Your task to perform on an android device: Search for cool wooden wall art on Etsy. Image 0: 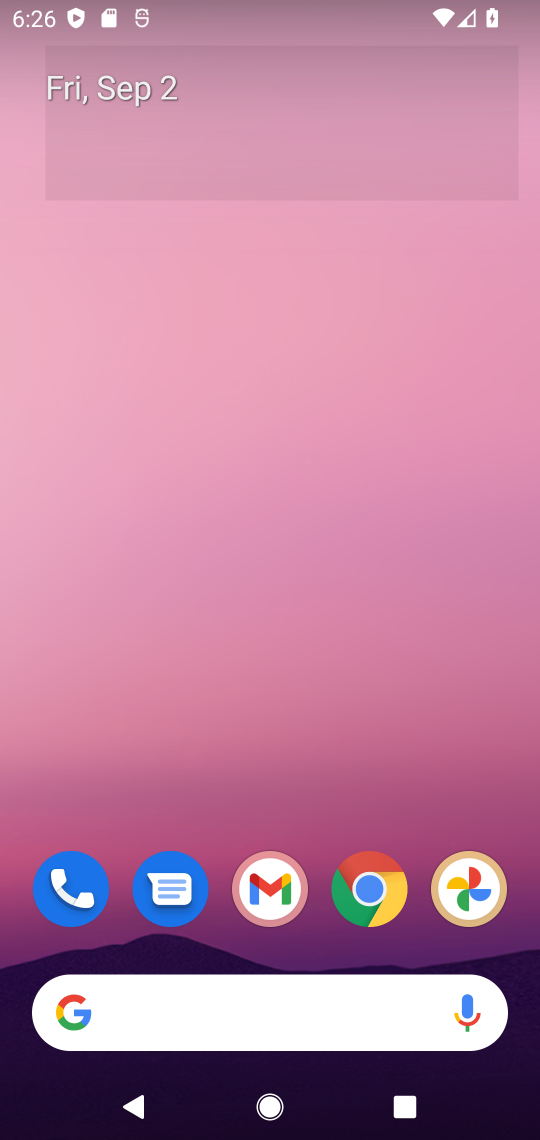
Step 0: click (342, 1032)
Your task to perform on an android device: Search for cool wooden wall art on Etsy. Image 1: 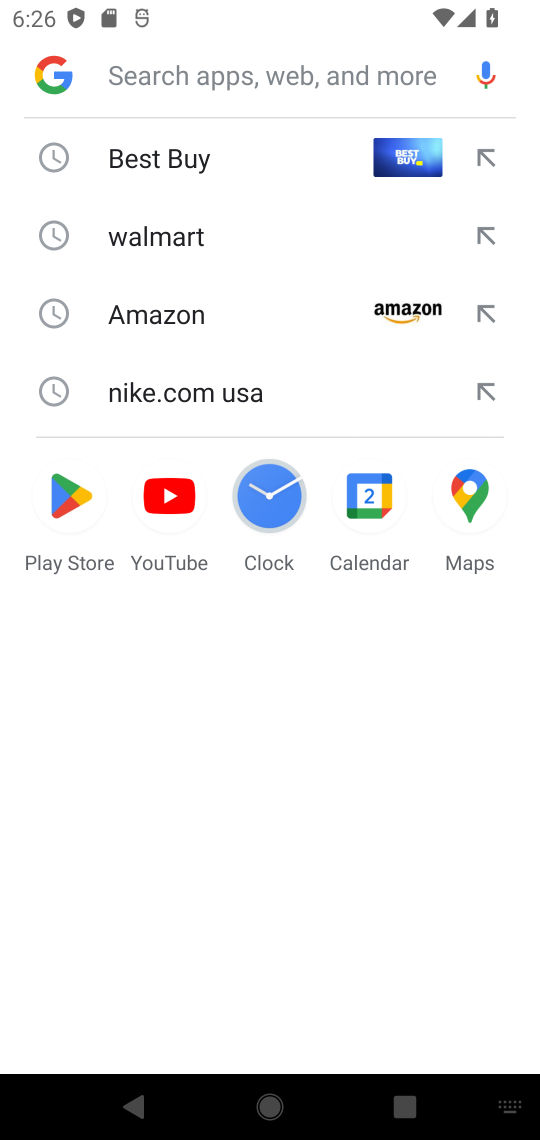
Step 1: type "Etsy."
Your task to perform on an android device: Search for cool wooden wall art on Etsy. Image 2: 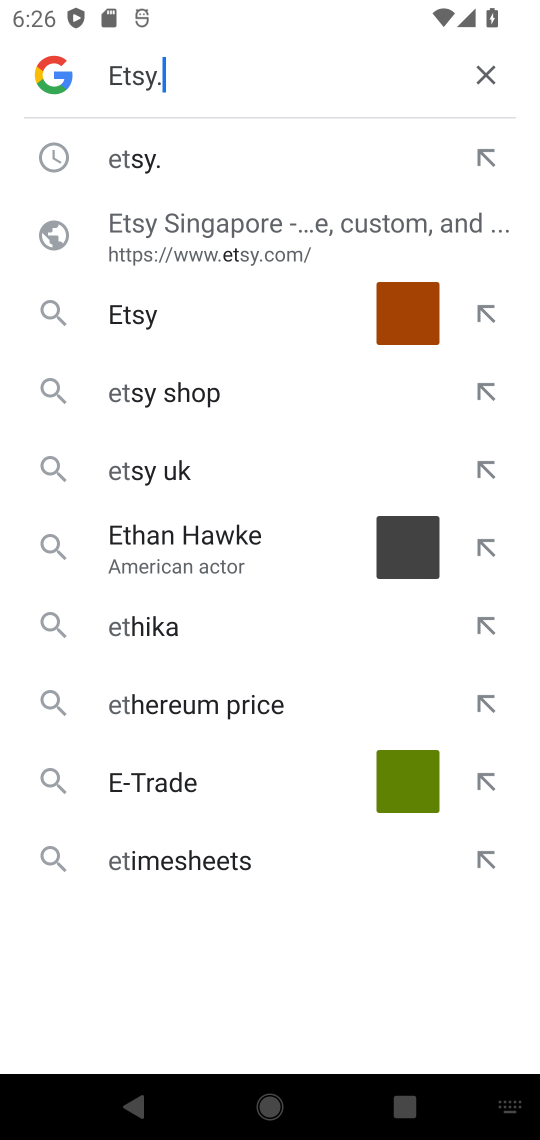
Step 2: type ""
Your task to perform on an android device: Search for cool wooden wall art on Etsy. Image 3: 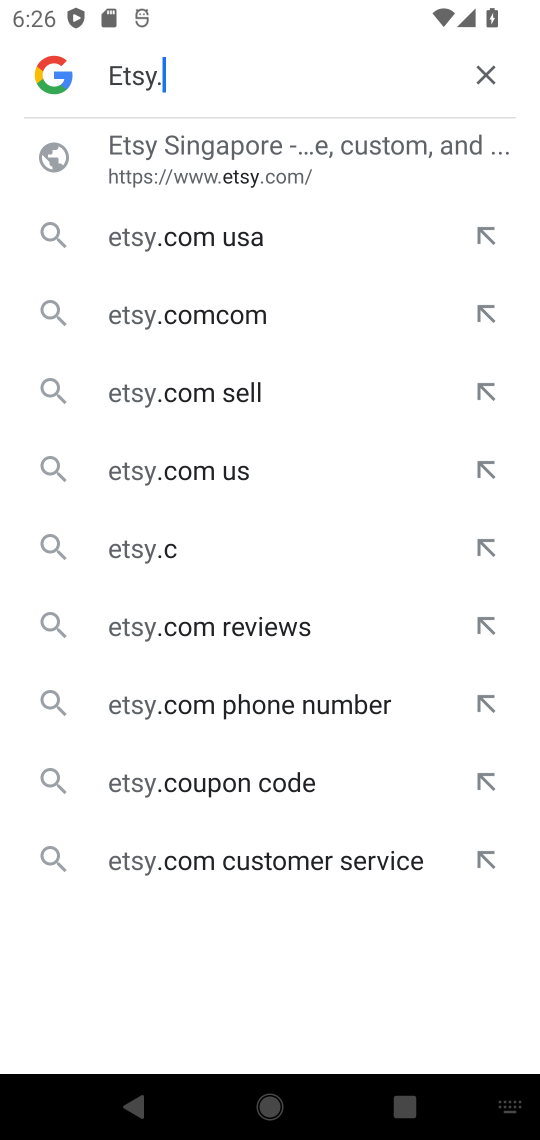
Step 3: click (211, 246)
Your task to perform on an android device: Search for cool wooden wall art on Etsy. Image 4: 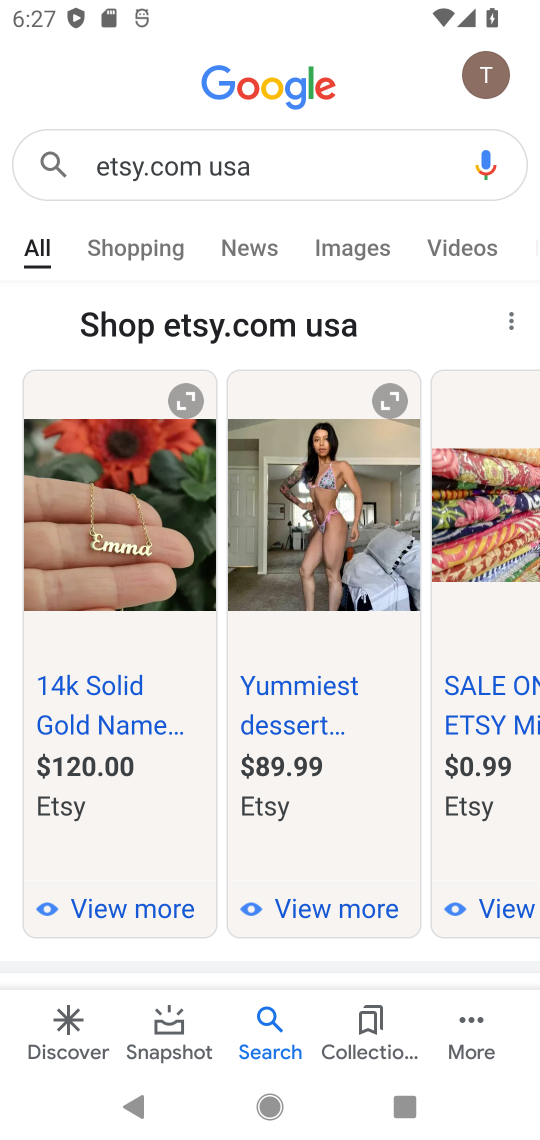
Step 4: drag from (225, 929) to (272, 317)
Your task to perform on an android device: Search for cool wooden wall art on Etsy. Image 5: 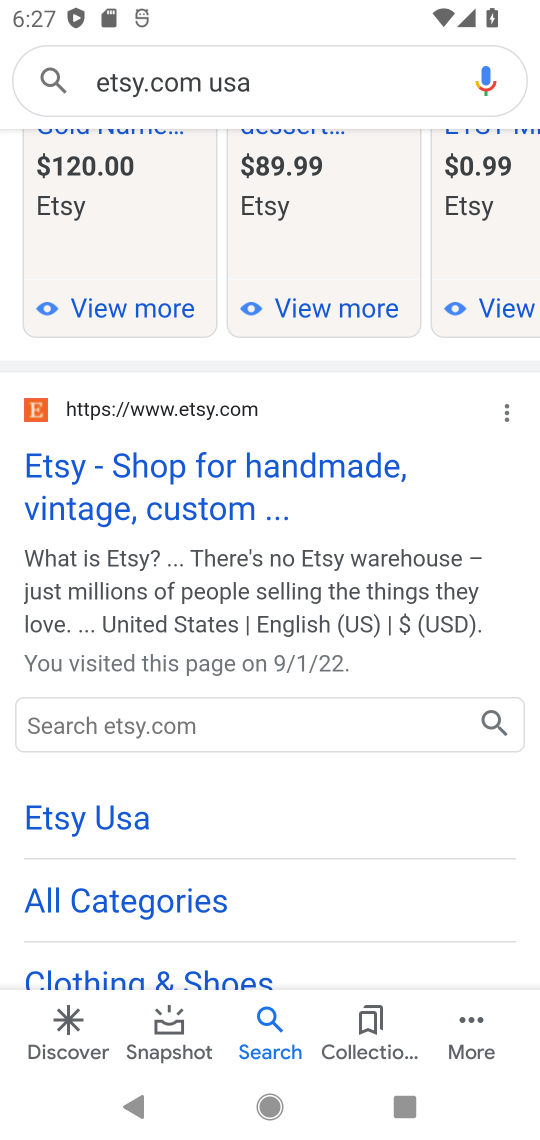
Step 5: click (204, 483)
Your task to perform on an android device: Search for cool wooden wall art on Etsy. Image 6: 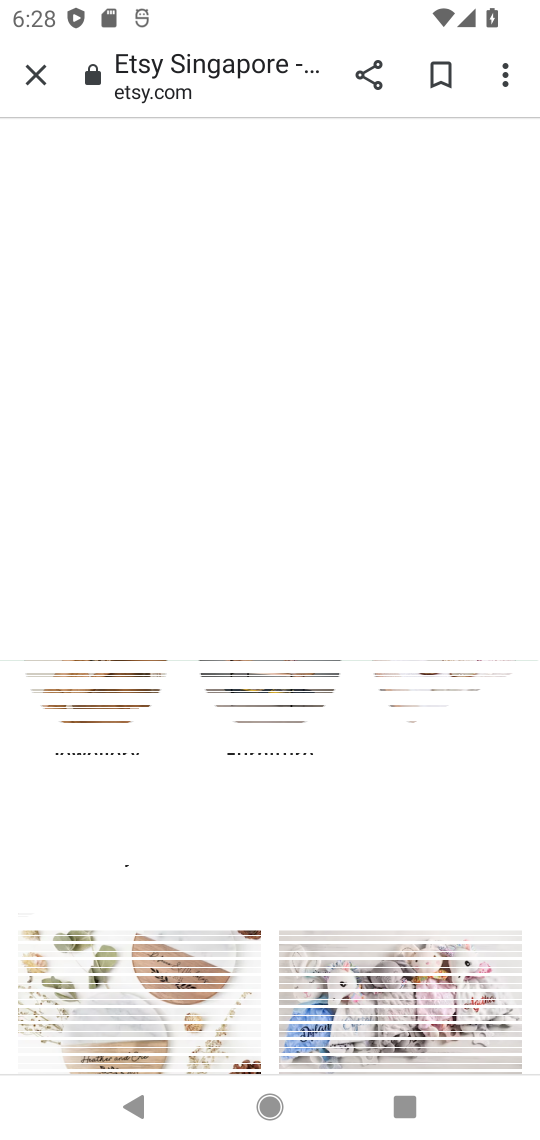
Step 6: click (296, 337)
Your task to perform on an android device: Search for cool wooden wall art on Etsy. Image 7: 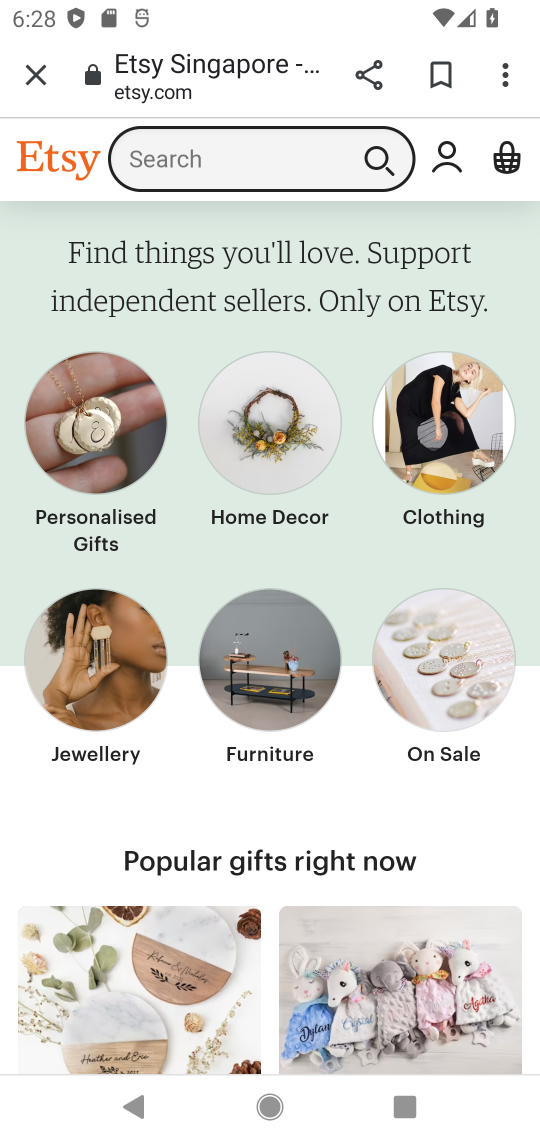
Step 7: click (237, 134)
Your task to perform on an android device: Search for cool wooden wall art on Etsy. Image 8: 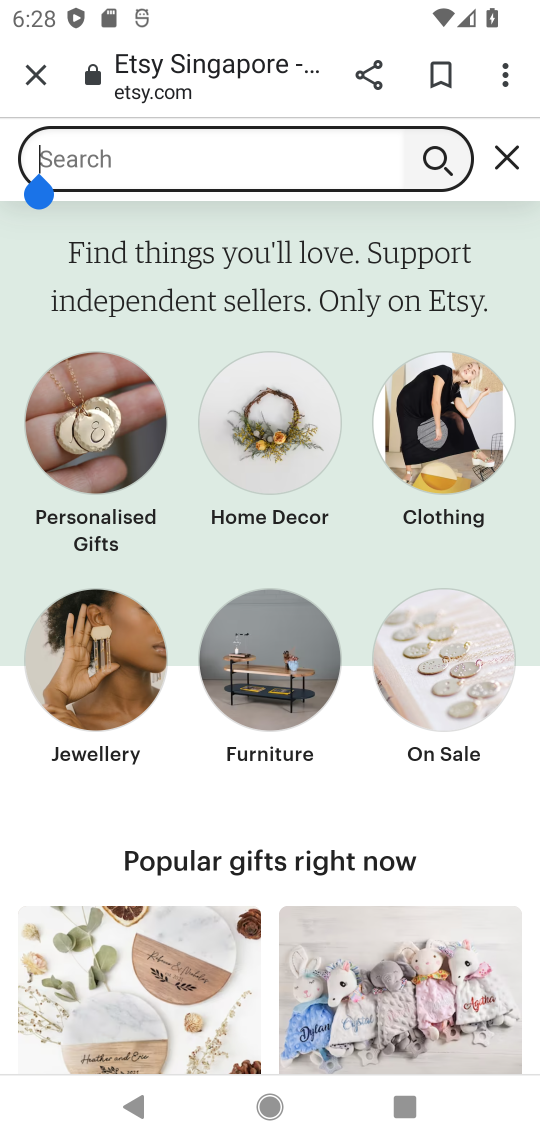
Step 8: type "cool wooden wall"
Your task to perform on an android device: Search for cool wooden wall art on Etsy. Image 9: 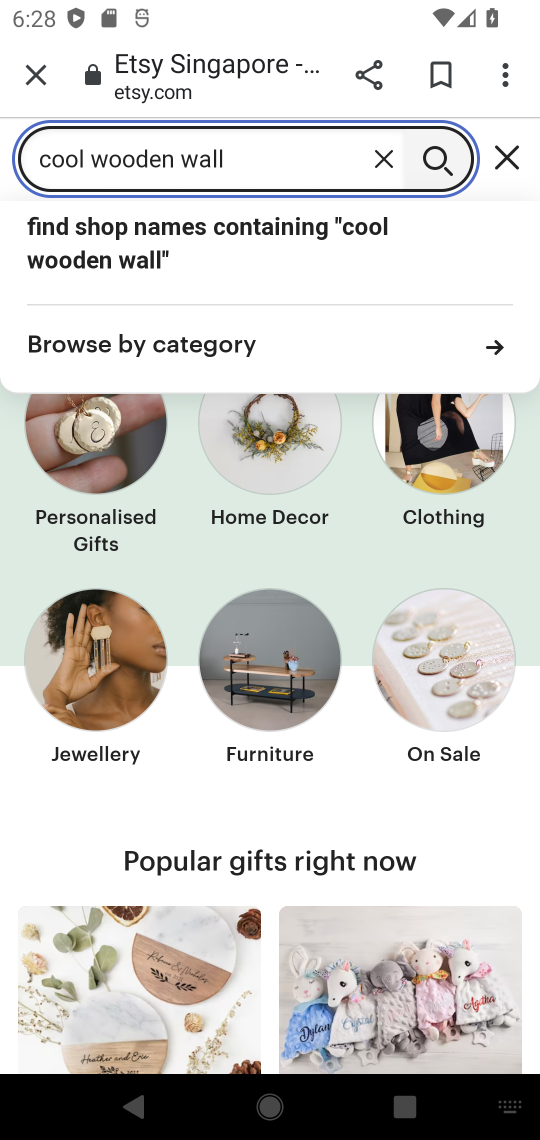
Step 9: click (445, 173)
Your task to perform on an android device: Search for cool wooden wall art on Etsy. Image 10: 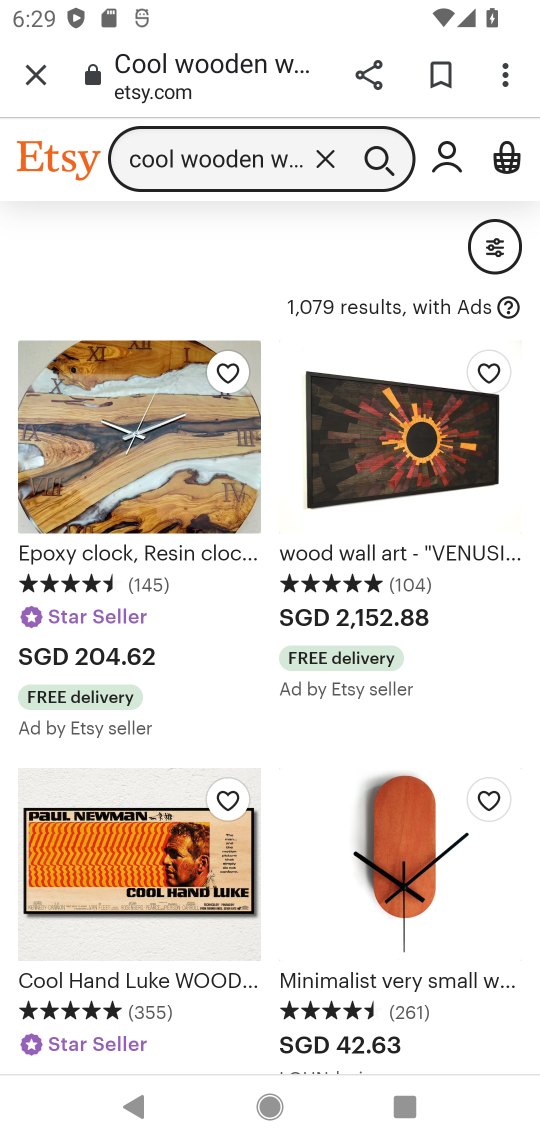
Step 10: click (373, 156)
Your task to perform on an android device: Search for cool wooden wall art on Etsy. Image 11: 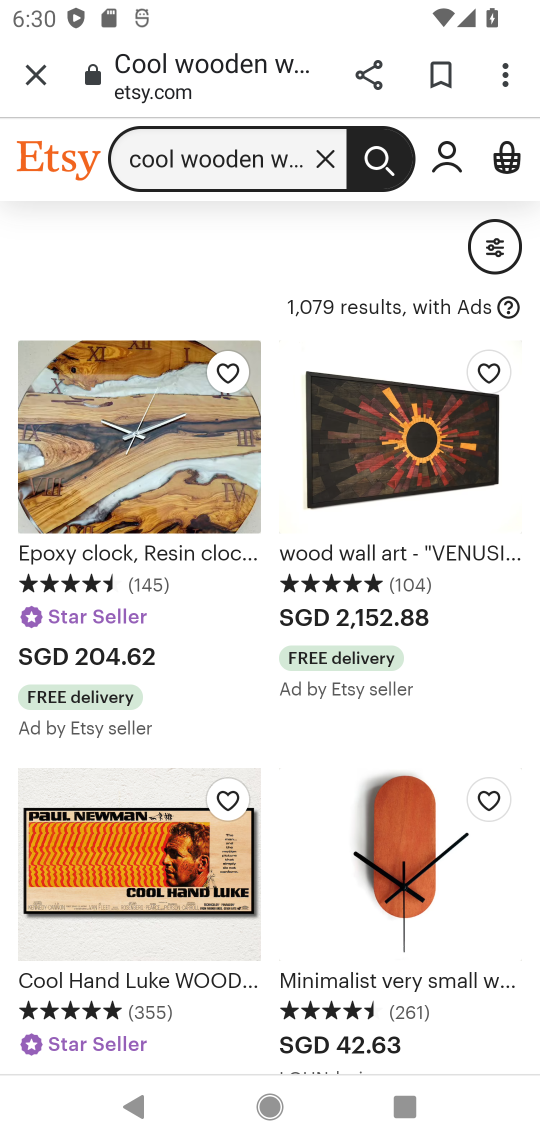
Step 11: task complete